Your task to perform on an android device: What's the price of the Sony TV? Image 0: 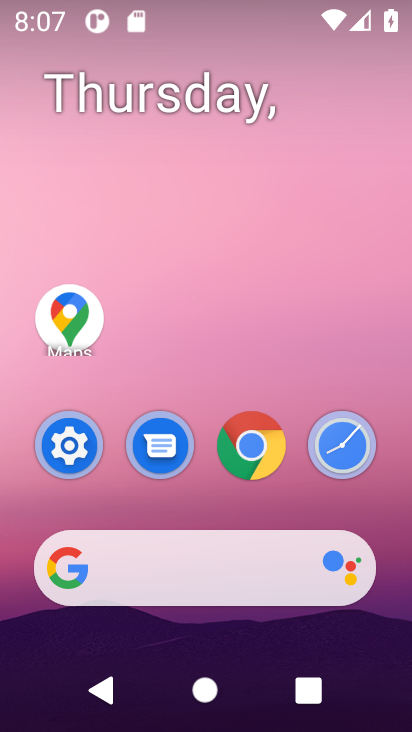
Step 0: click (172, 578)
Your task to perform on an android device: What's the price of the Sony TV? Image 1: 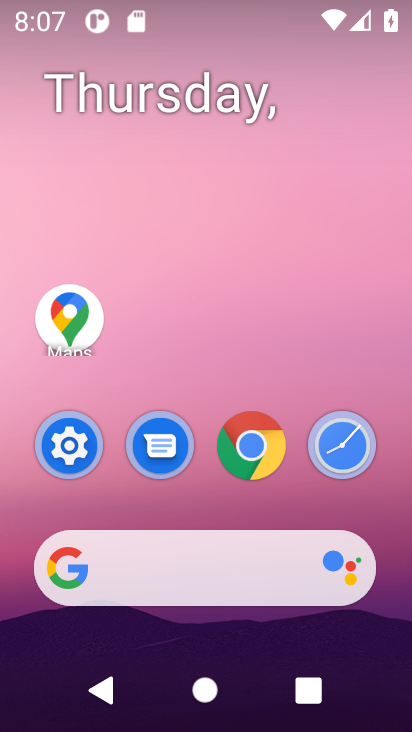
Step 1: click (172, 578)
Your task to perform on an android device: What's the price of the Sony TV? Image 2: 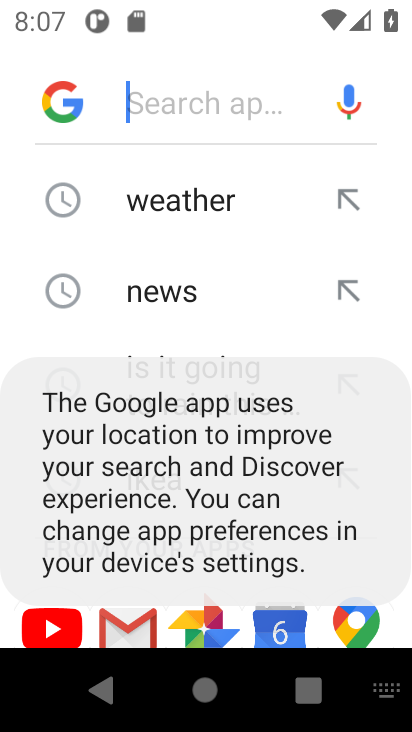
Step 2: type "What's the price of the Sony TV?"
Your task to perform on an android device: What's the price of the Sony TV? Image 3: 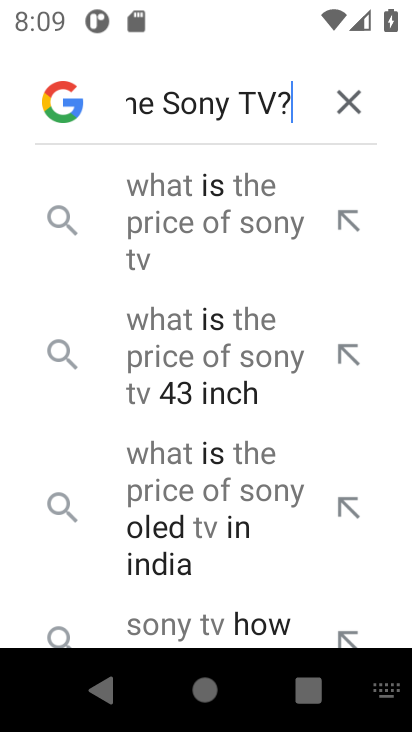
Step 3: click (229, 206)
Your task to perform on an android device: What's the price of the Sony TV? Image 4: 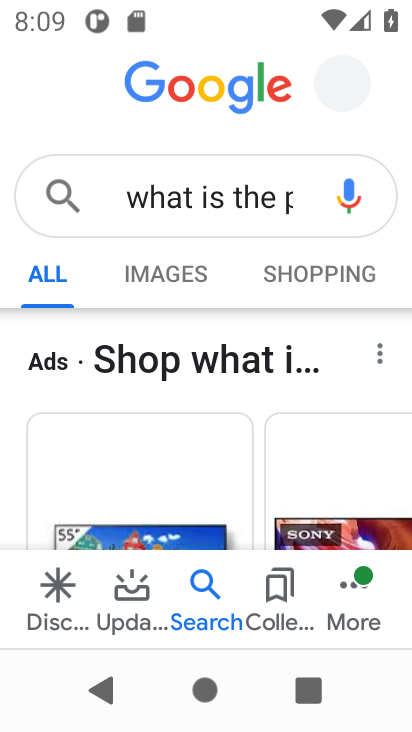
Step 4: task complete